Your task to perform on an android device: set the stopwatch Image 0: 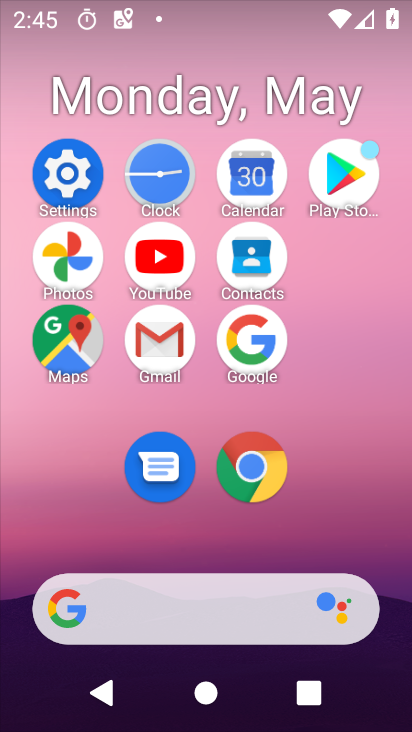
Step 0: click (175, 160)
Your task to perform on an android device: set the stopwatch Image 1: 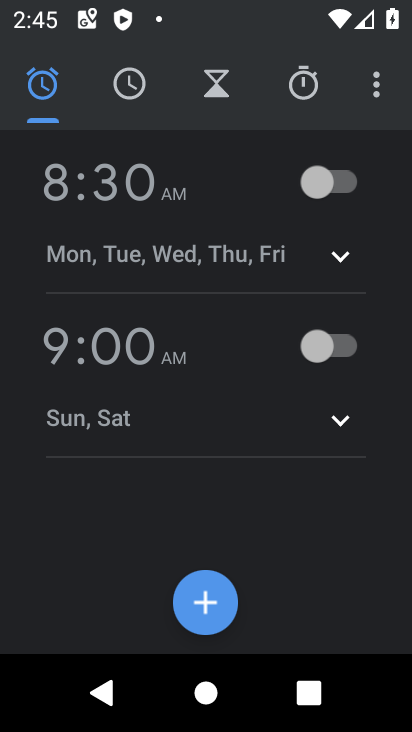
Step 1: click (294, 73)
Your task to perform on an android device: set the stopwatch Image 2: 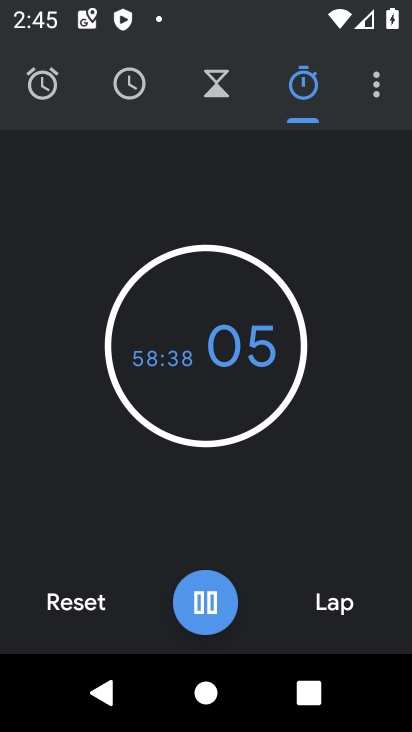
Step 2: click (103, 603)
Your task to perform on an android device: set the stopwatch Image 3: 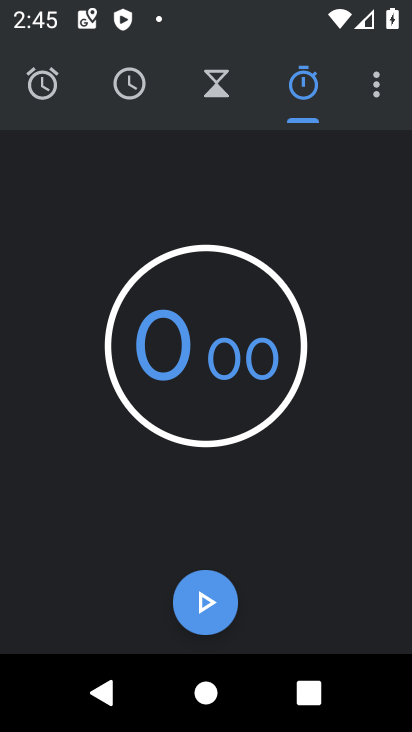
Step 3: click (227, 609)
Your task to perform on an android device: set the stopwatch Image 4: 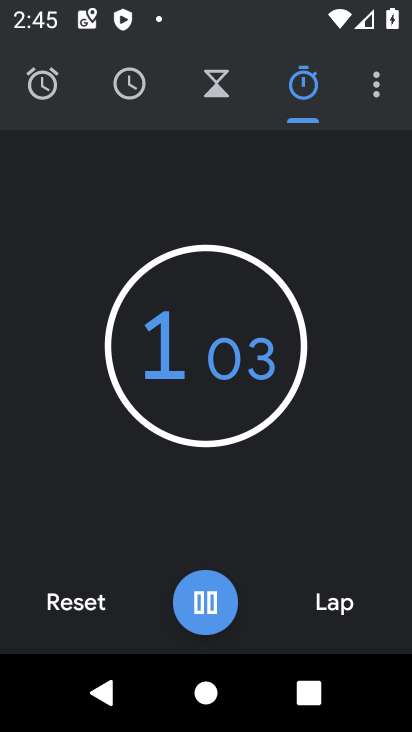
Step 4: task complete